Your task to perform on an android device: Show me popular games on the Play Store Image 0: 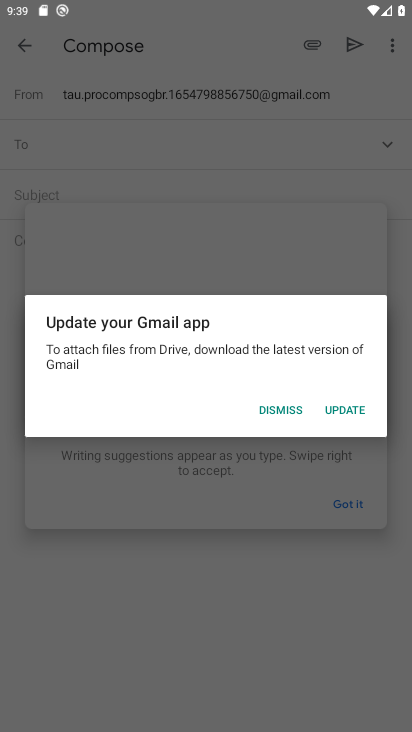
Step 0: press home button
Your task to perform on an android device: Show me popular games on the Play Store Image 1: 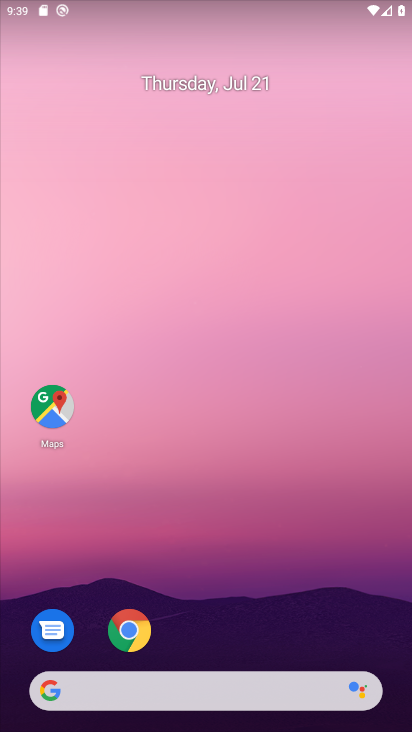
Step 1: drag from (302, 621) to (370, 99)
Your task to perform on an android device: Show me popular games on the Play Store Image 2: 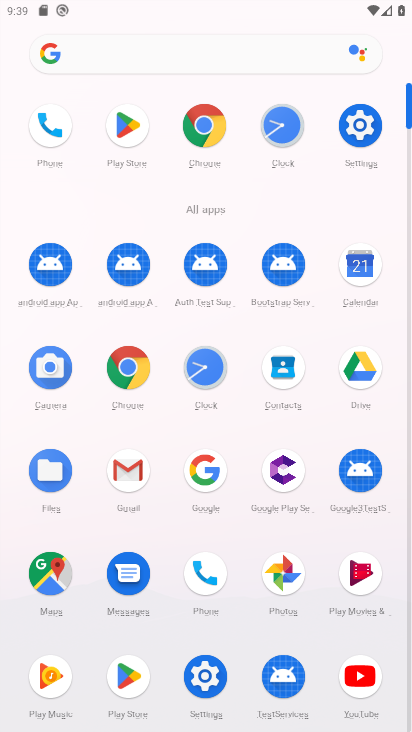
Step 2: click (126, 134)
Your task to perform on an android device: Show me popular games on the Play Store Image 3: 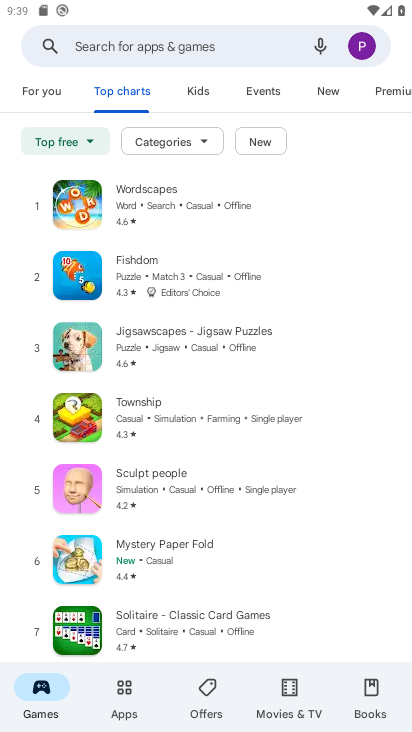
Step 3: task complete